Your task to perform on an android device: turn off data saver in the chrome app Image 0: 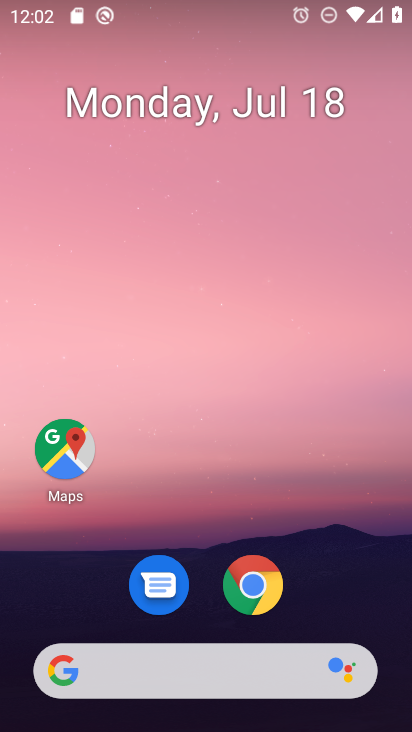
Step 0: click (262, 611)
Your task to perform on an android device: turn off data saver in the chrome app Image 1: 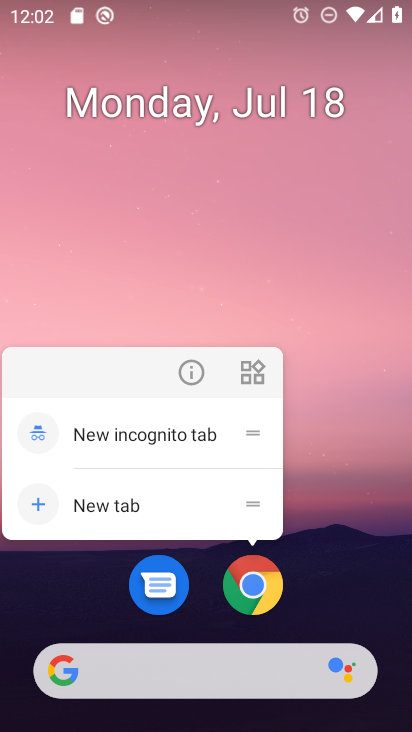
Step 1: click (262, 604)
Your task to perform on an android device: turn off data saver in the chrome app Image 2: 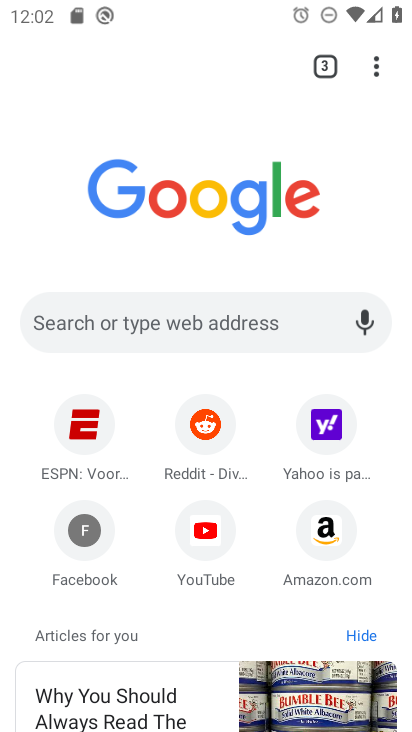
Step 2: click (378, 67)
Your task to perform on an android device: turn off data saver in the chrome app Image 3: 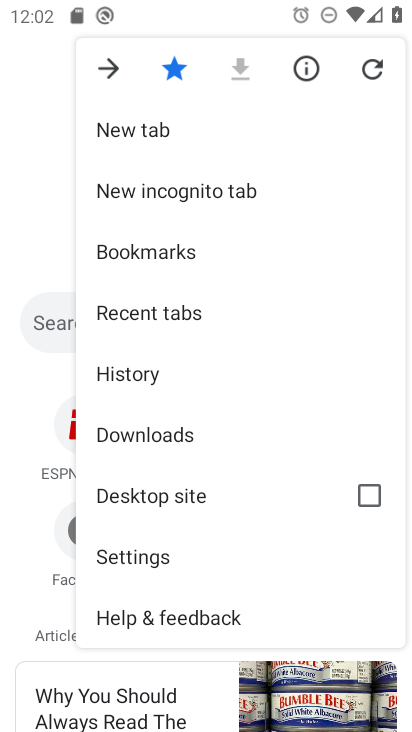
Step 3: click (144, 551)
Your task to perform on an android device: turn off data saver in the chrome app Image 4: 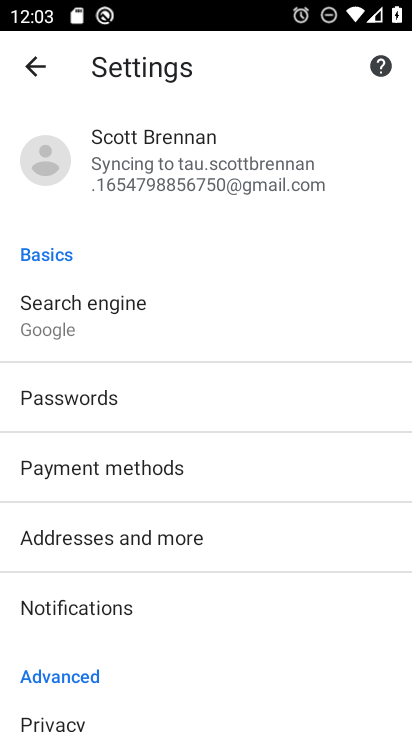
Step 4: drag from (250, 665) to (219, 326)
Your task to perform on an android device: turn off data saver in the chrome app Image 5: 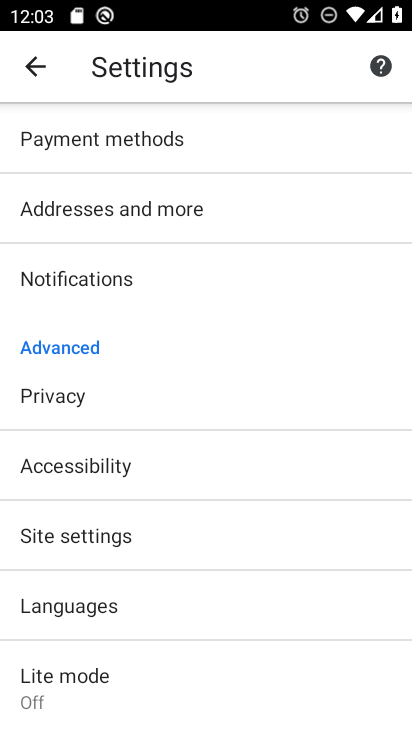
Step 5: click (139, 673)
Your task to perform on an android device: turn off data saver in the chrome app Image 6: 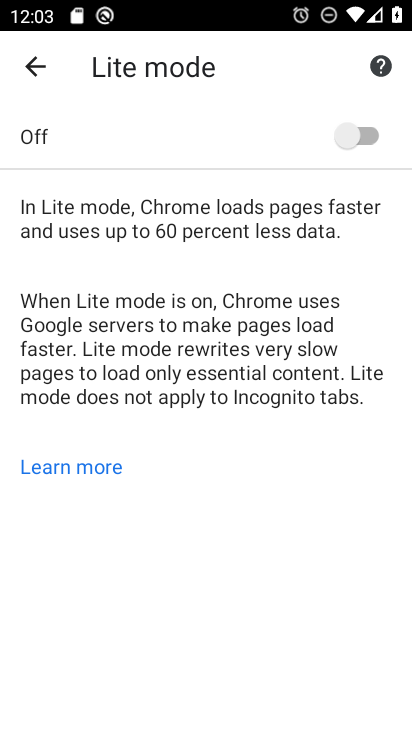
Step 6: task complete